Your task to perform on an android device: Open CNN.com Image 0: 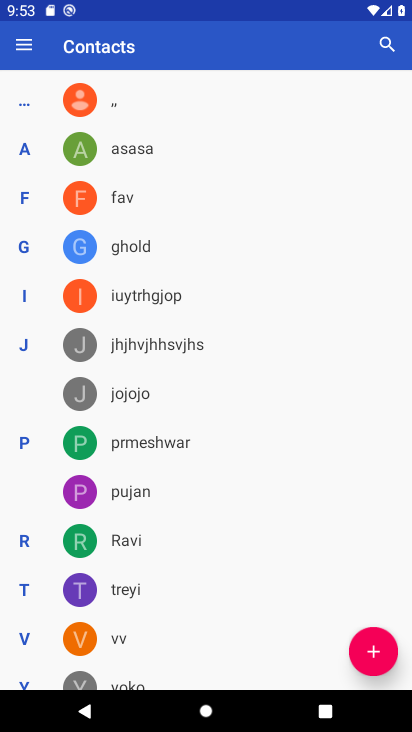
Step 0: press home button
Your task to perform on an android device: Open CNN.com Image 1: 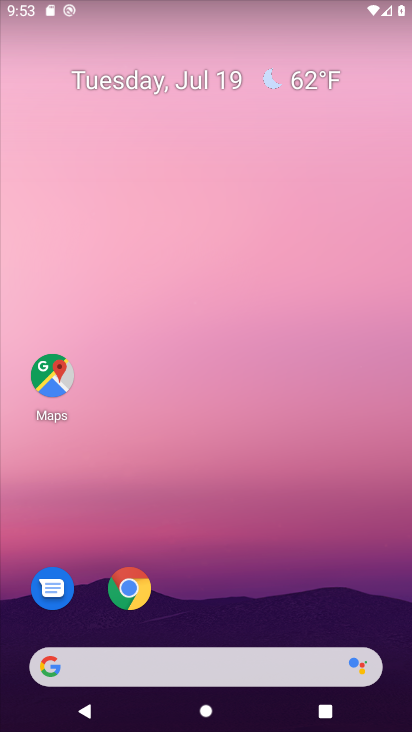
Step 1: click (133, 588)
Your task to perform on an android device: Open CNN.com Image 2: 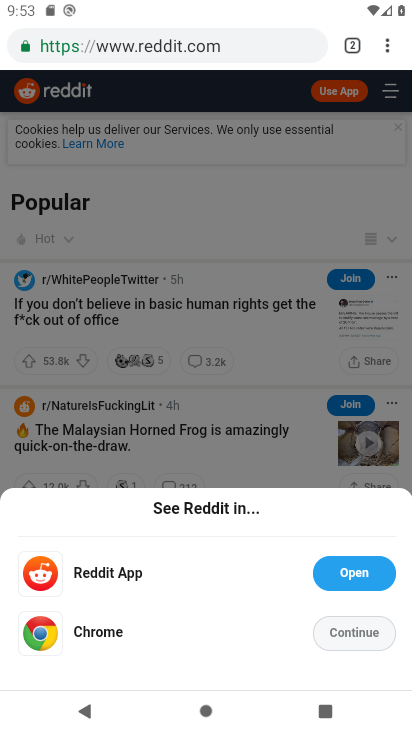
Step 2: click (149, 41)
Your task to perform on an android device: Open CNN.com Image 3: 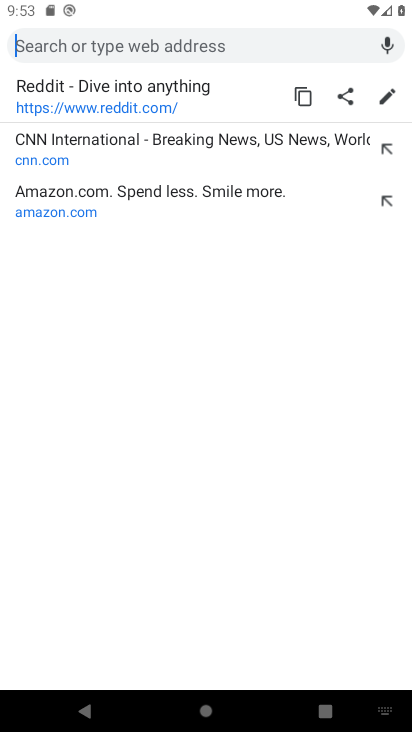
Step 3: type "www.cnn.com"
Your task to perform on an android device: Open CNN.com Image 4: 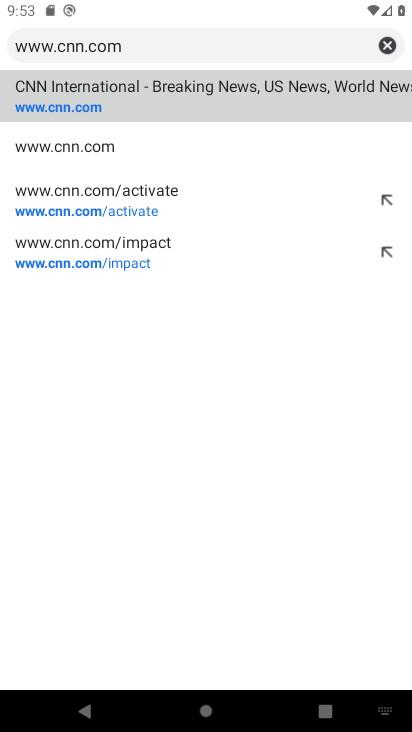
Step 4: click (48, 112)
Your task to perform on an android device: Open CNN.com Image 5: 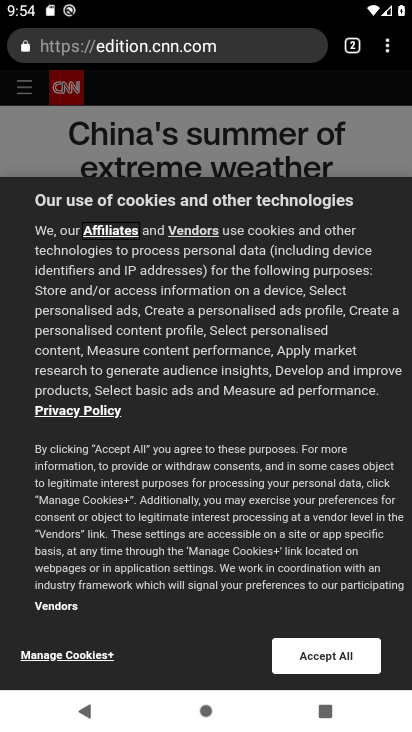
Step 5: task complete